Your task to perform on an android device: Search for vegetarian restaurants on Maps Image 0: 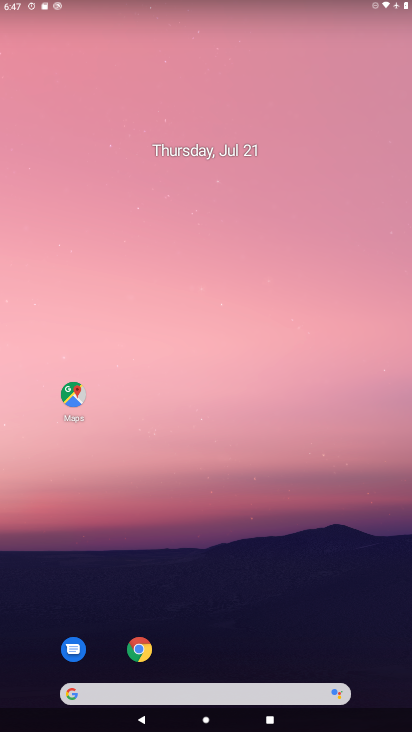
Step 0: drag from (375, 633) to (210, 43)
Your task to perform on an android device: Search for vegetarian restaurants on Maps Image 1: 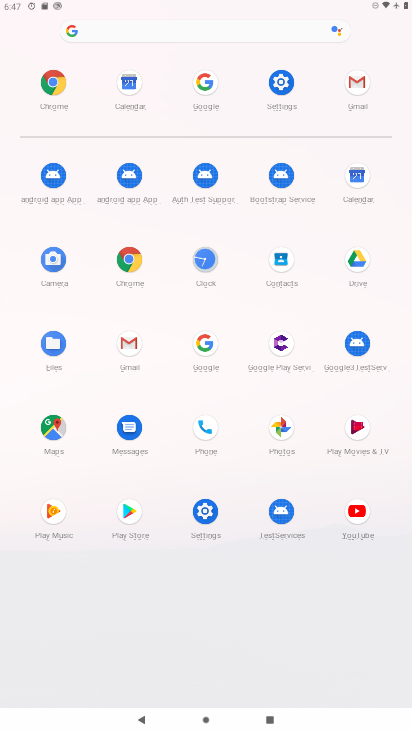
Step 1: click (38, 439)
Your task to perform on an android device: Search for vegetarian restaurants on Maps Image 2: 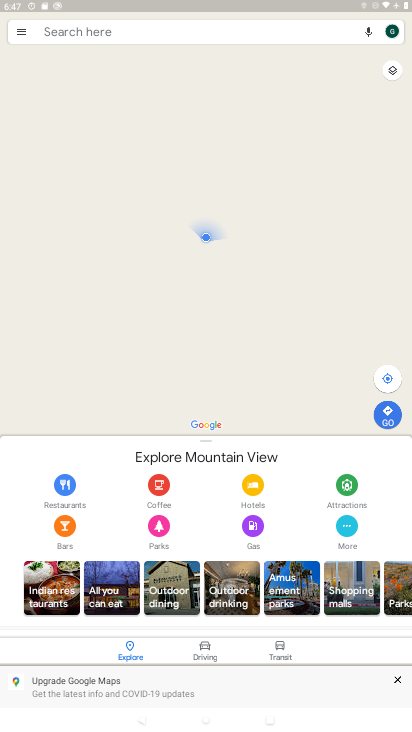
Step 2: click (108, 31)
Your task to perform on an android device: Search for vegetarian restaurants on Maps Image 3: 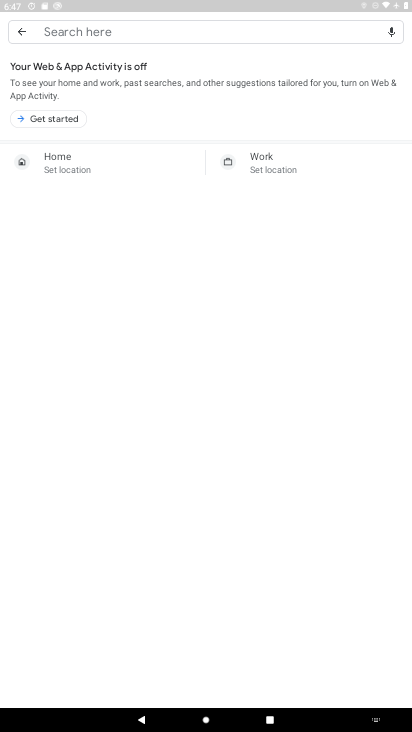
Step 3: click (61, 114)
Your task to perform on an android device: Search for vegetarian restaurants on Maps Image 4: 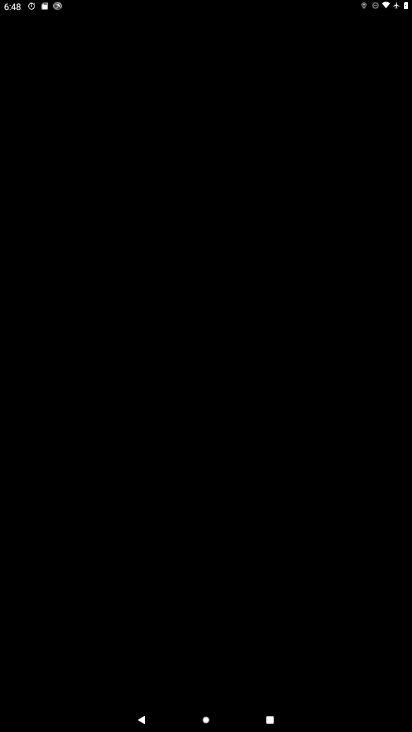
Step 4: click (52, 123)
Your task to perform on an android device: Search for vegetarian restaurants on Maps Image 5: 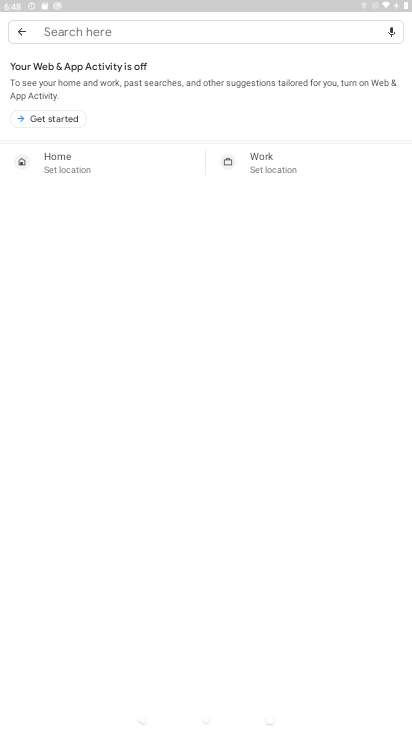
Step 5: click (101, 36)
Your task to perform on an android device: Search for vegetarian restaurants on Maps Image 6: 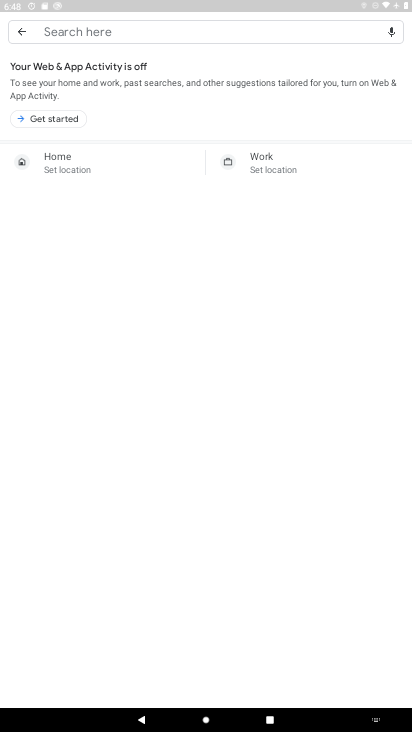
Step 6: click (59, 113)
Your task to perform on an android device: Search for vegetarian restaurants on Maps Image 7: 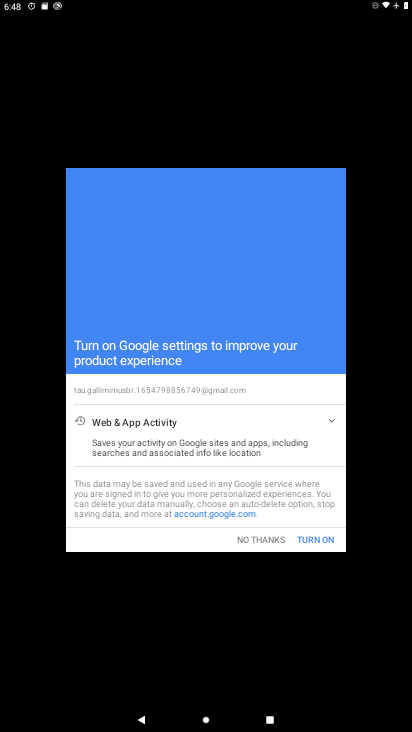
Step 7: click (327, 543)
Your task to perform on an android device: Search for vegetarian restaurants on Maps Image 8: 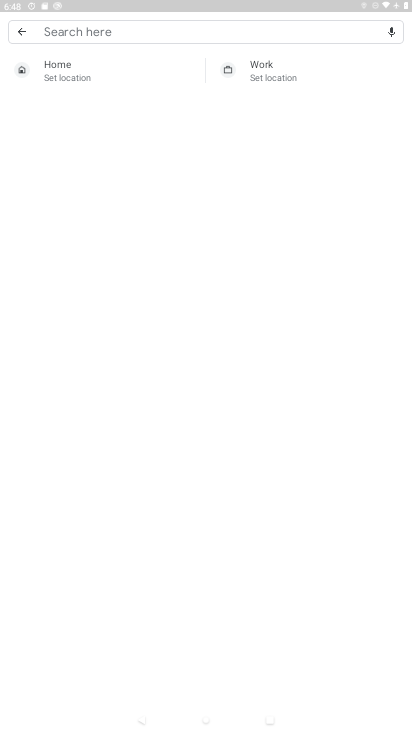
Step 8: click (106, 30)
Your task to perform on an android device: Search for vegetarian restaurants on Maps Image 9: 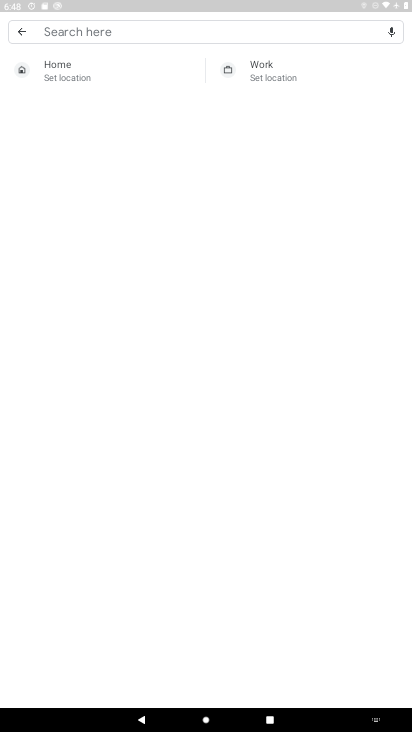
Step 9: type "vegetarian restaurants"
Your task to perform on an android device: Search for vegetarian restaurants on Maps Image 10: 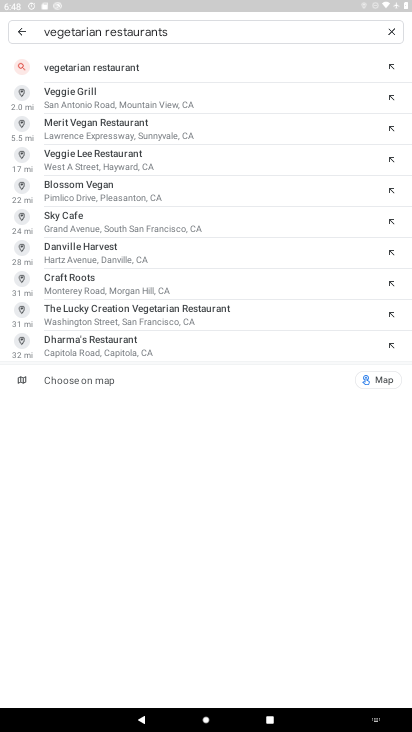
Step 10: click (107, 69)
Your task to perform on an android device: Search for vegetarian restaurants on Maps Image 11: 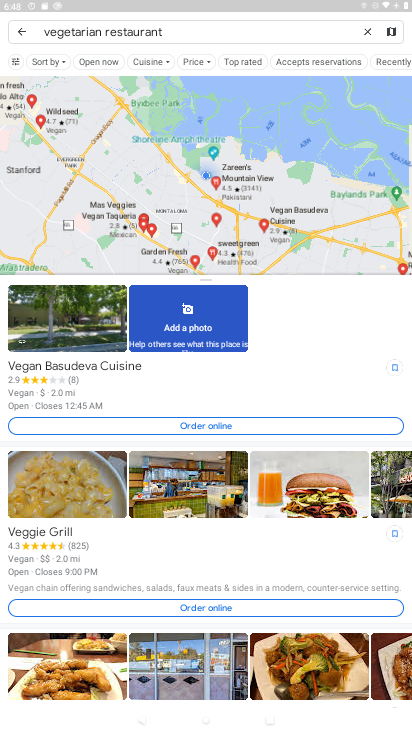
Step 11: task complete